Your task to perform on an android device: See recent photos Image 0: 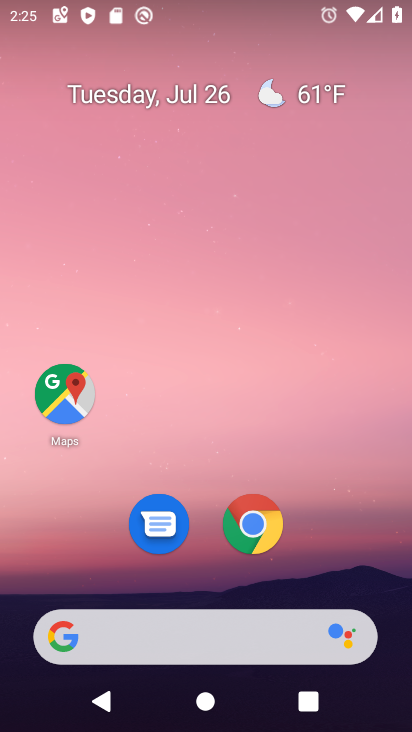
Step 0: press home button
Your task to perform on an android device: See recent photos Image 1: 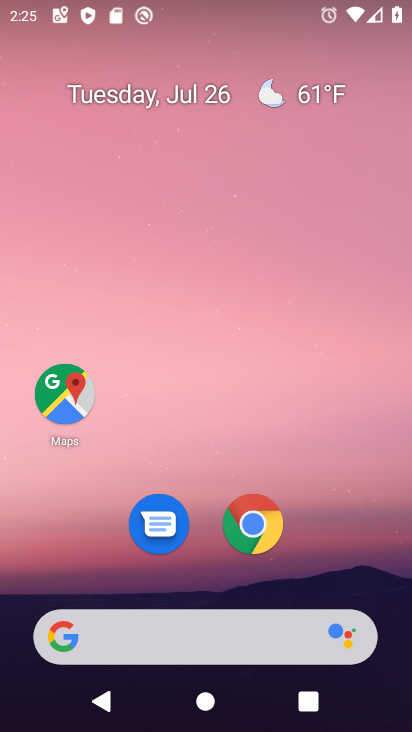
Step 1: drag from (183, 648) to (278, 154)
Your task to perform on an android device: See recent photos Image 2: 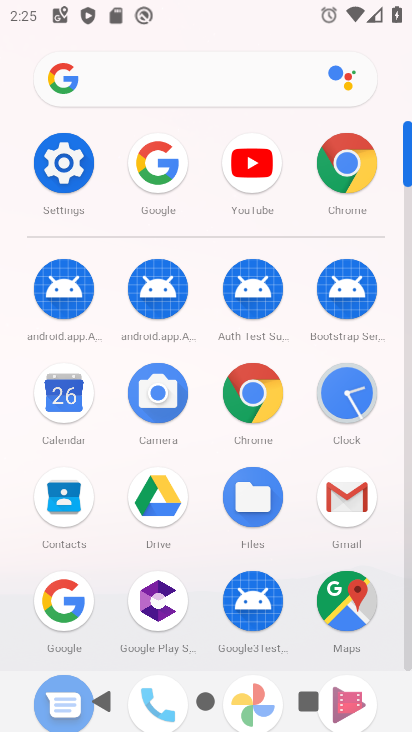
Step 2: drag from (209, 573) to (305, 143)
Your task to perform on an android device: See recent photos Image 3: 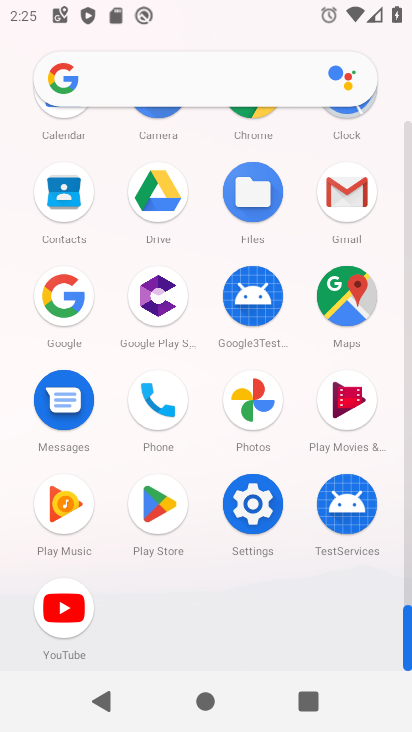
Step 3: click (250, 405)
Your task to perform on an android device: See recent photos Image 4: 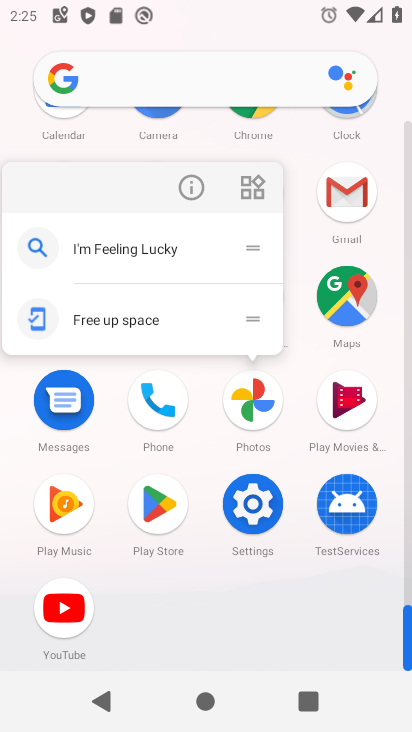
Step 4: click (244, 388)
Your task to perform on an android device: See recent photos Image 5: 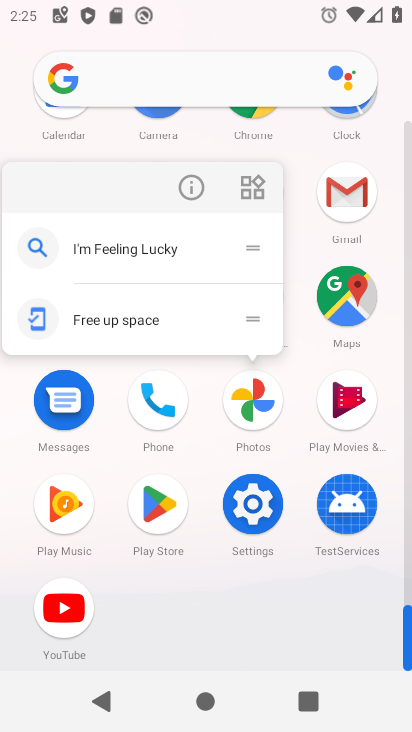
Step 5: click (257, 401)
Your task to perform on an android device: See recent photos Image 6: 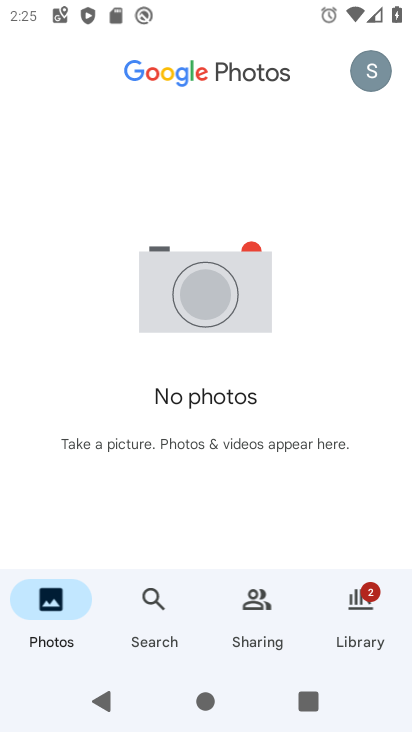
Step 6: click (353, 636)
Your task to perform on an android device: See recent photos Image 7: 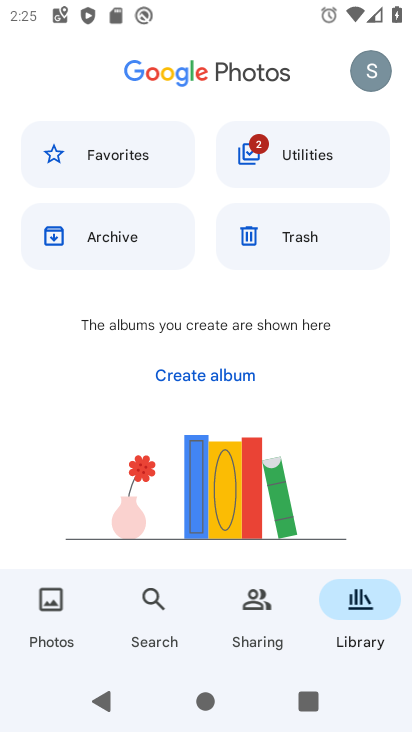
Step 7: drag from (294, 438) to (349, 52)
Your task to perform on an android device: See recent photos Image 8: 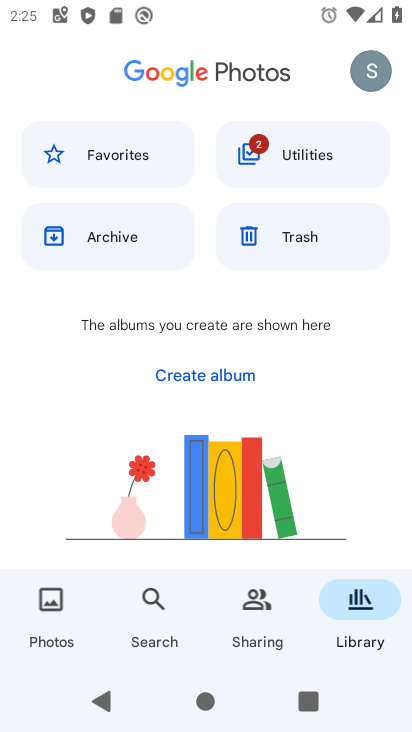
Step 8: drag from (147, 434) to (272, 92)
Your task to perform on an android device: See recent photos Image 9: 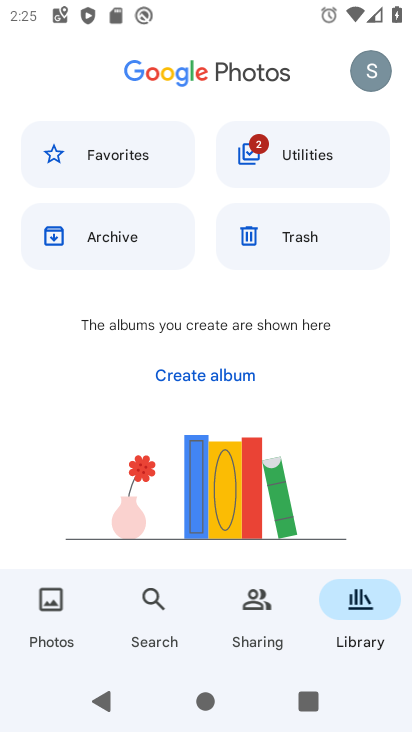
Step 9: click (254, 621)
Your task to perform on an android device: See recent photos Image 10: 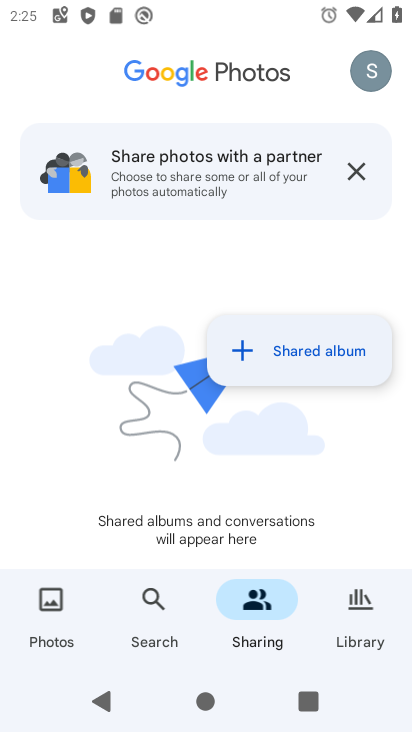
Step 10: click (158, 632)
Your task to perform on an android device: See recent photos Image 11: 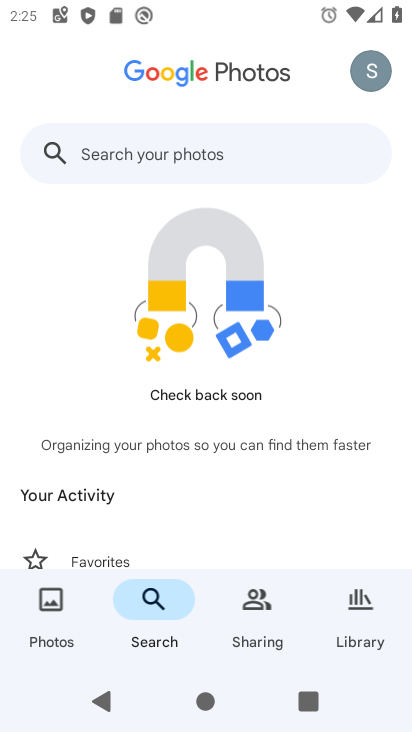
Step 11: drag from (195, 534) to (280, 135)
Your task to perform on an android device: See recent photos Image 12: 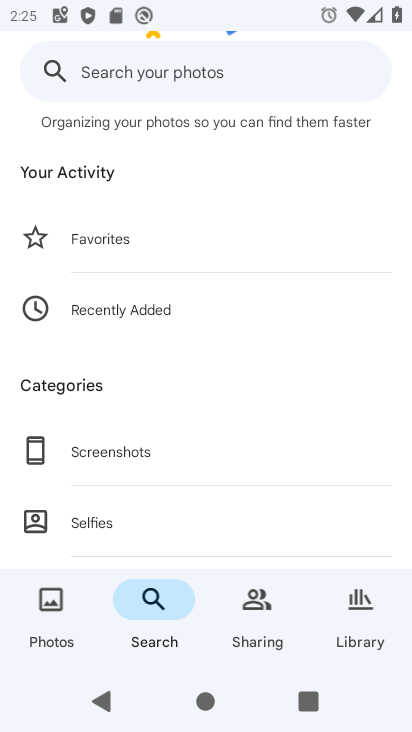
Step 12: click (137, 310)
Your task to perform on an android device: See recent photos Image 13: 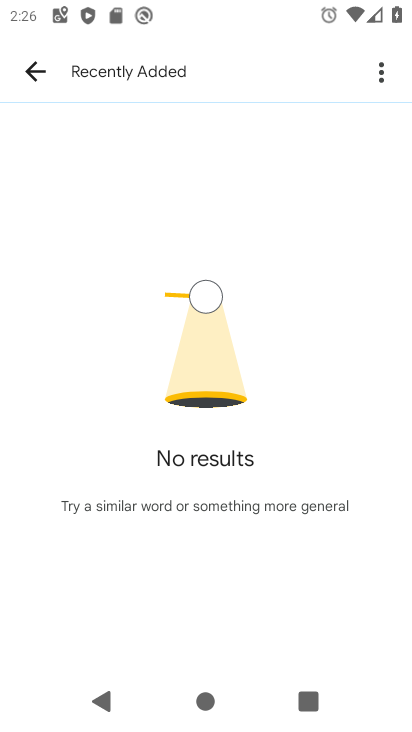
Step 13: task complete